Your task to perform on an android device: delete a single message in the gmail app Image 0: 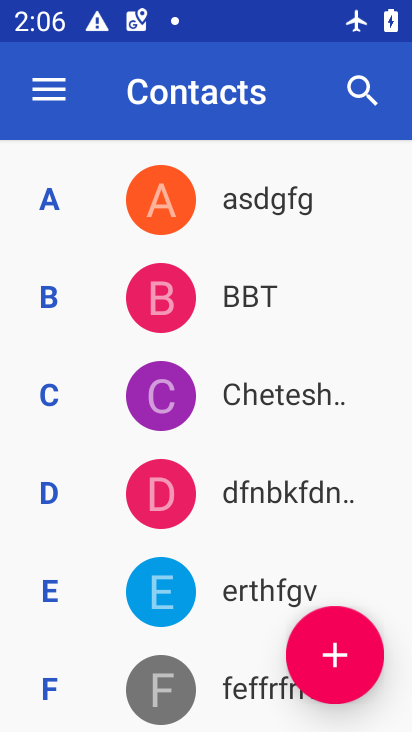
Step 0: press home button
Your task to perform on an android device: delete a single message in the gmail app Image 1: 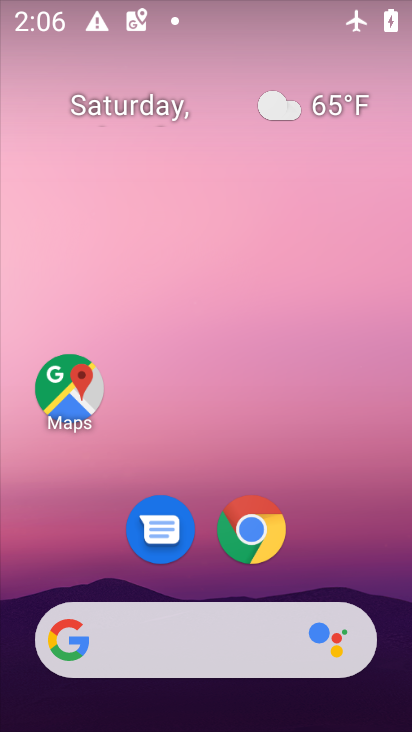
Step 1: drag from (354, 593) to (297, 109)
Your task to perform on an android device: delete a single message in the gmail app Image 2: 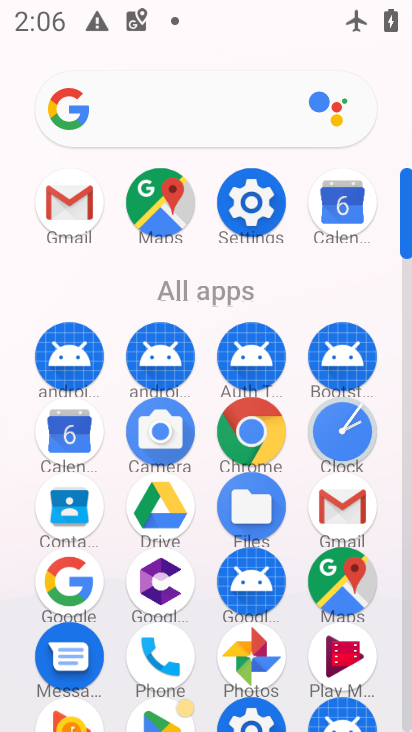
Step 2: click (73, 204)
Your task to perform on an android device: delete a single message in the gmail app Image 3: 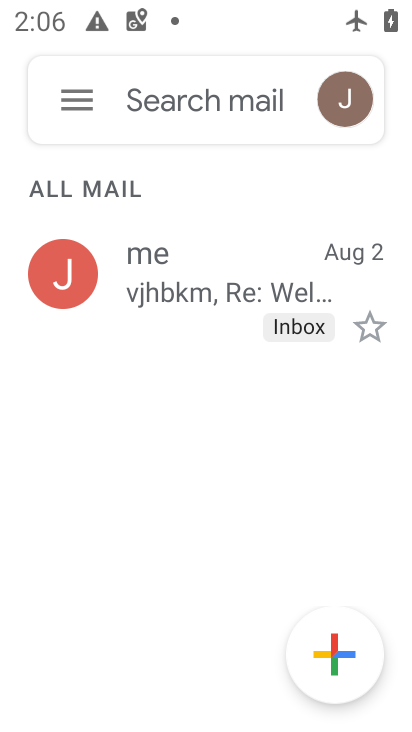
Step 3: click (195, 299)
Your task to perform on an android device: delete a single message in the gmail app Image 4: 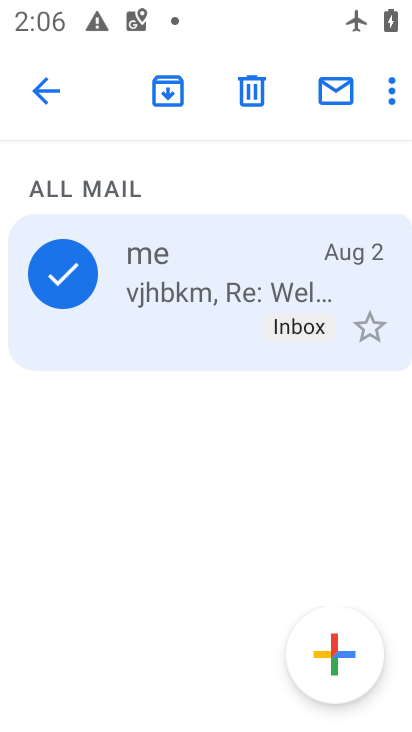
Step 4: click (254, 85)
Your task to perform on an android device: delete a single message in the gmail app Image 5: 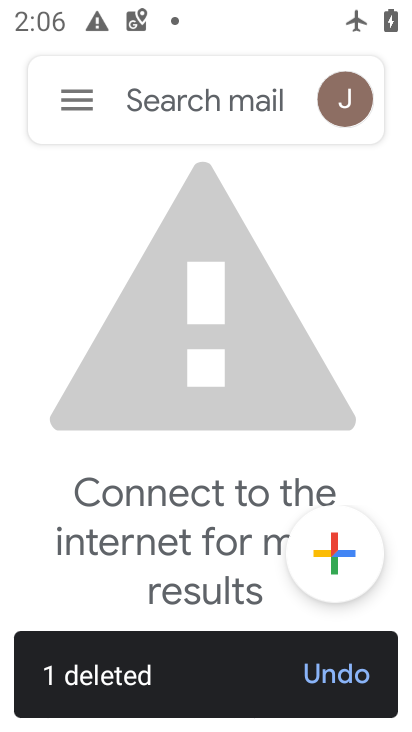
Step 5: task complete